Your task to perform on an android device: Go to location settings Image 0: 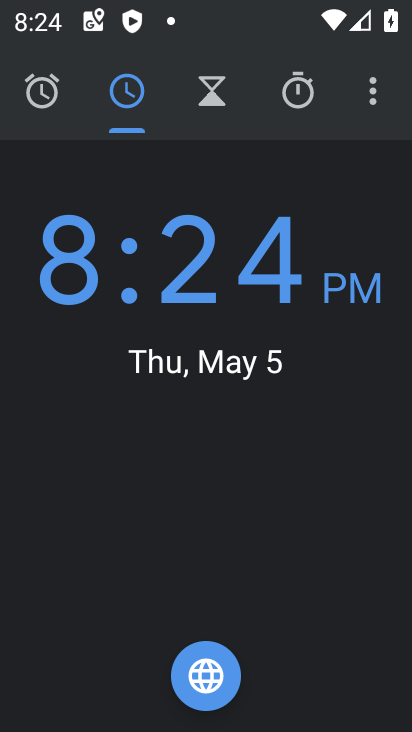
Step 0: press home button
Your task to perform on an android device: Go to location settings Image 1: 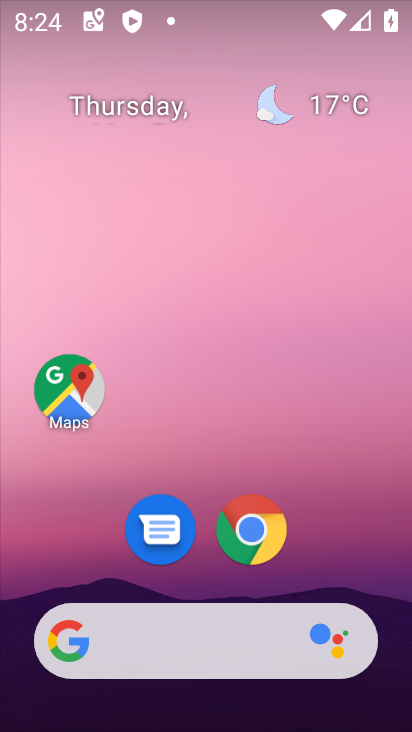
Step 1: drag from (348, 546) to (276, 57)
Your task to perform on an android device: Go to location settings Image 2: 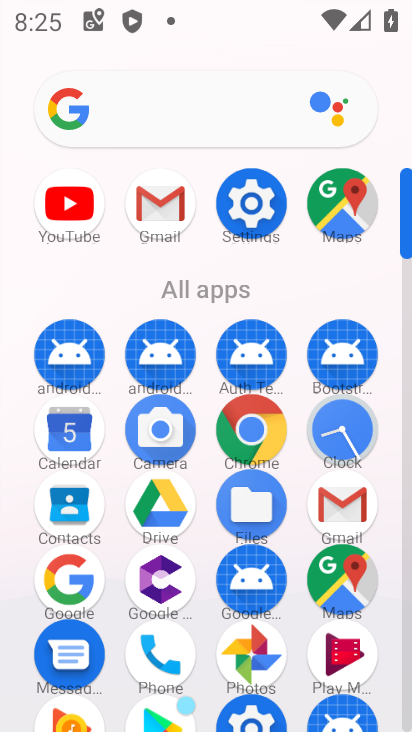
Step 2: click (251, 203)
Your task to perform on an android device: Go to location settings Image 3: 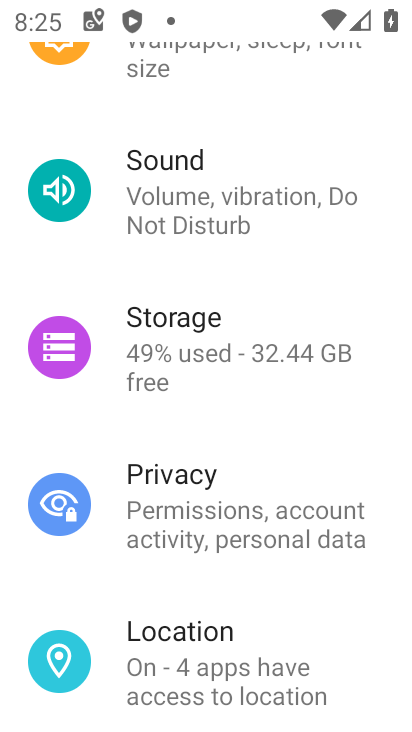
Step 3: click (195, 647)
Your task to perform on an android device: Go to location settings Image 4: 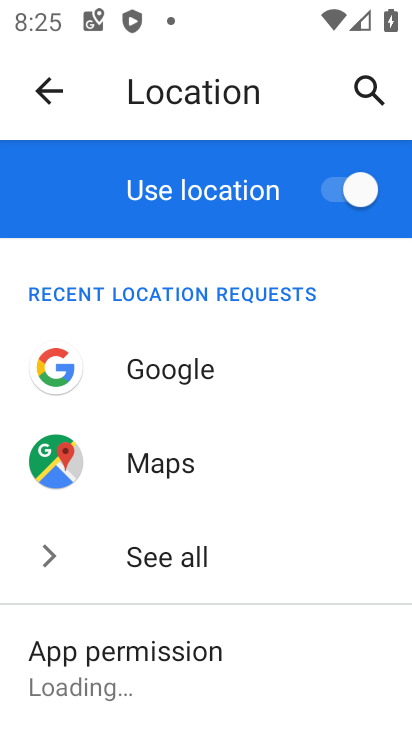
Step 4: task complete